Your task to perform on an android device: Search for bose soundlink mini on costco, select the first entry, add it to the cart, then select checkout. Image 0: 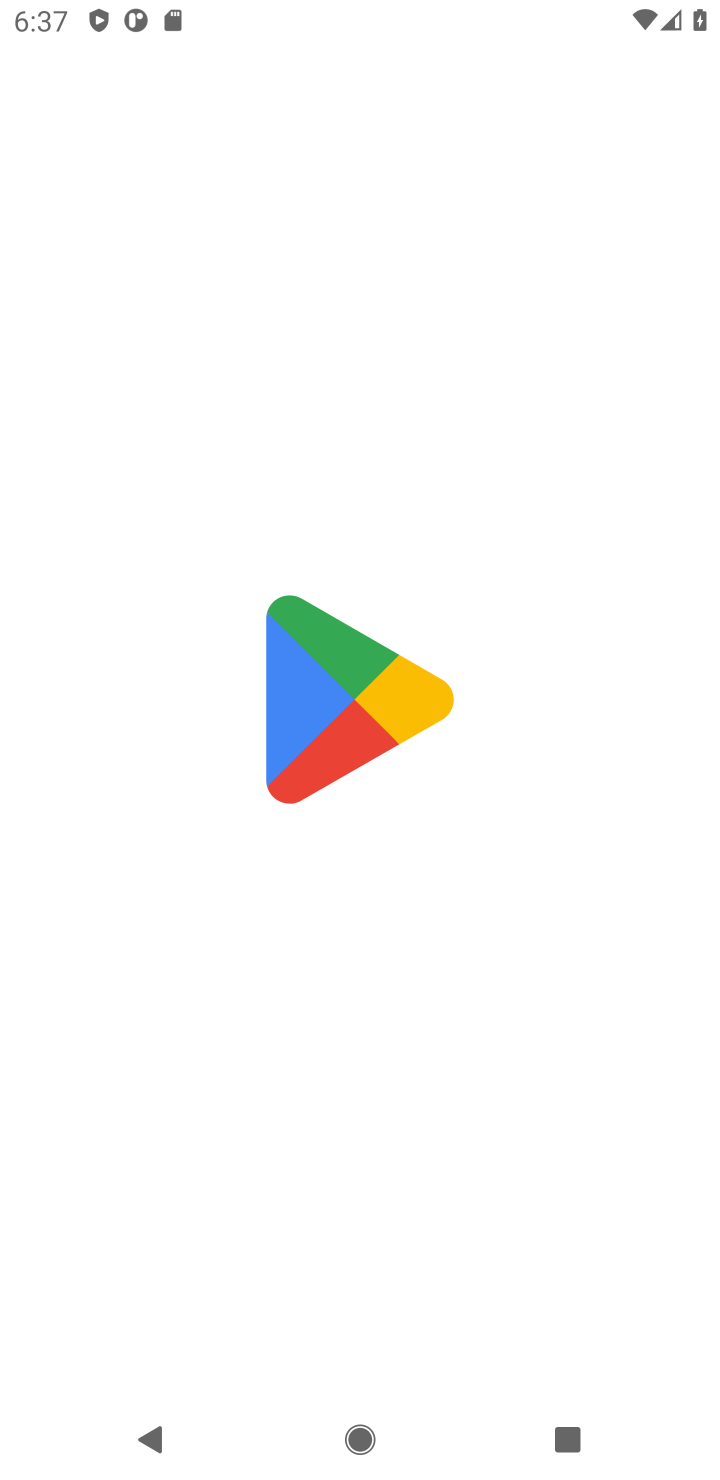
Step 0: press home button
Your task to perform on an android device: Search for bose soundlink mini on costco, select the first entry, add it to the cart, then select checkout. Image 1: 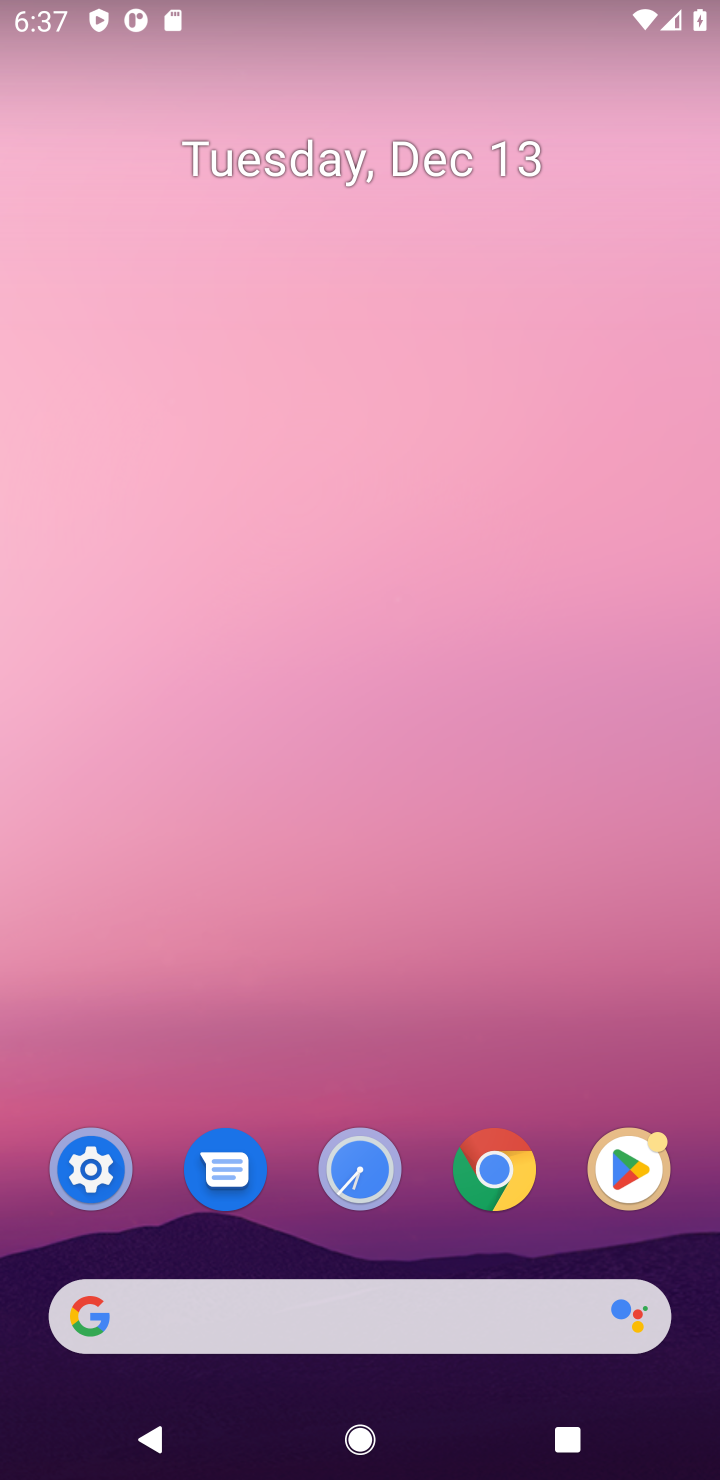
Step 1: type "bose"
Your task to perform on an android device: Search for bose soundlink mini on costco, select the first entry, add it to the cart, then select checkout. Image 2: 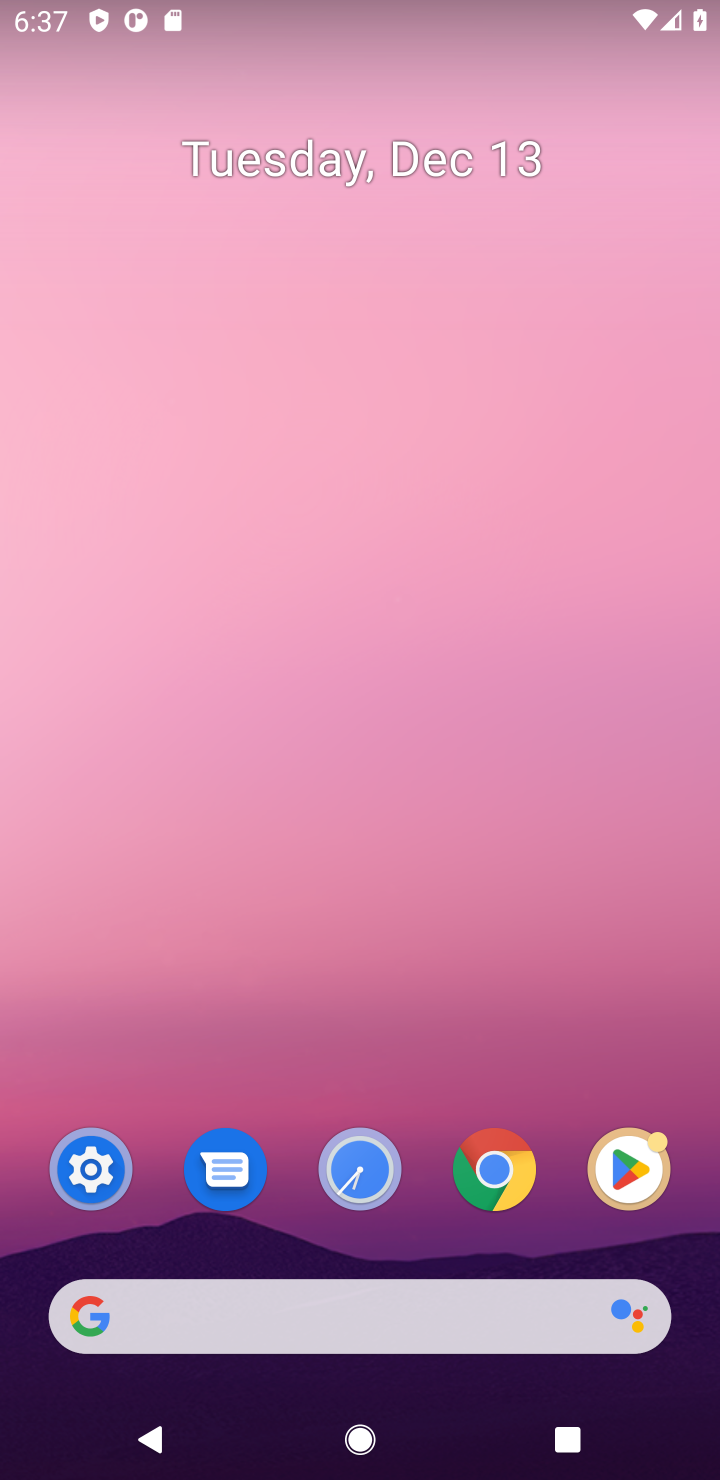
Step 2: click (485, 1189)
Your task to perform on an android device: Search for bose soundlink mini on costco, select the first entry, add it to the cart, then select checkout. Image 3: 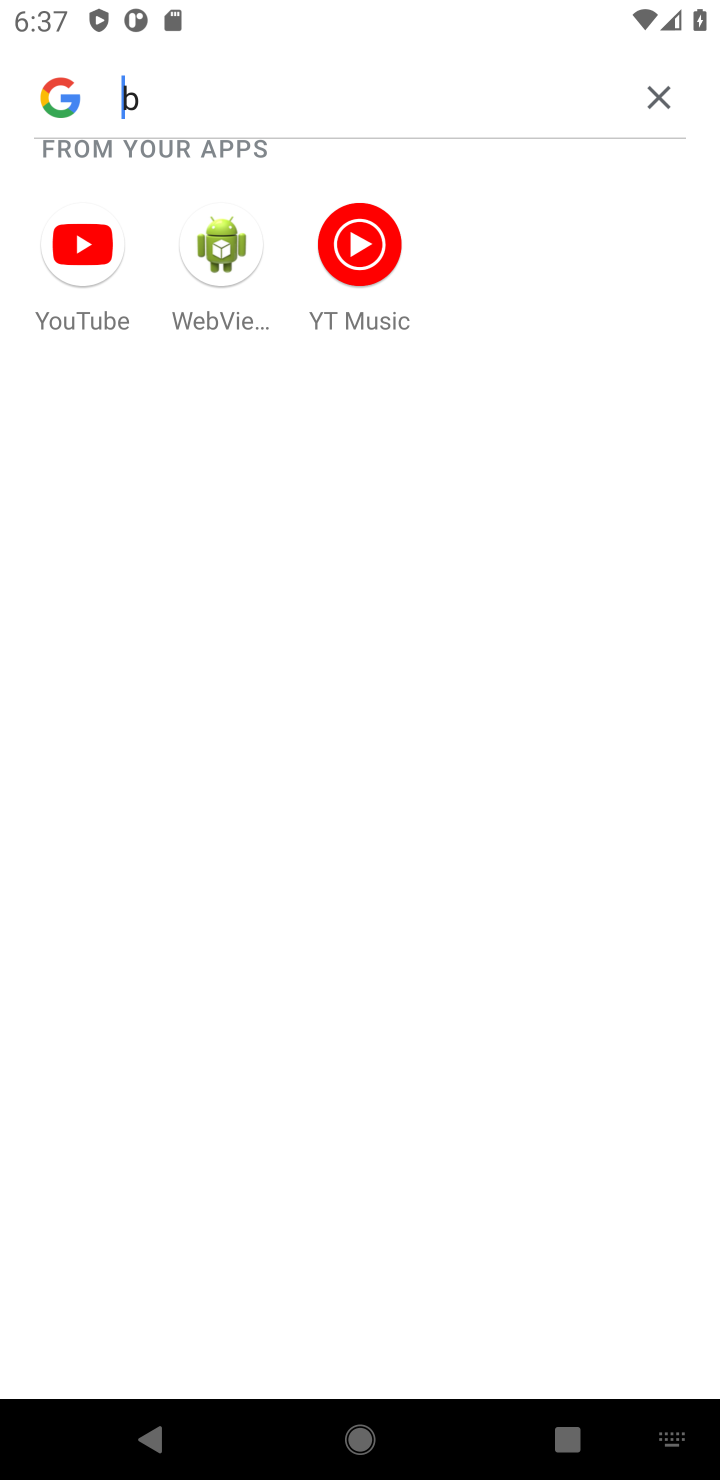
Step 3: press home button
Your task to perform on an android device: Search for bose soundlink mini on costco, select the first entry, add it to the cart, then select checkout. Image 4: 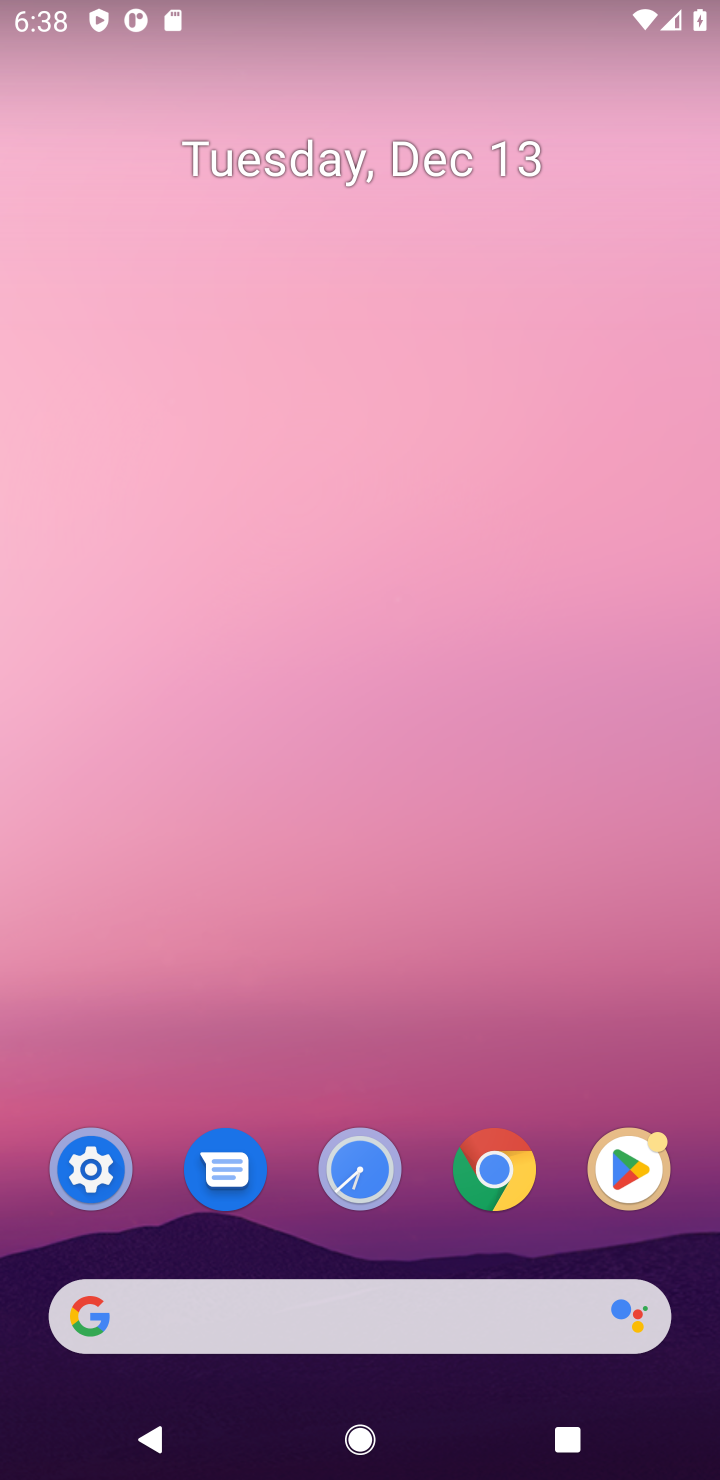
Step 4: click (508, 1150)
Your task to perform on an android device: Search for bose soundlink mini on costco, select the first entry, add it to the cart, then select checkout. Image 5: 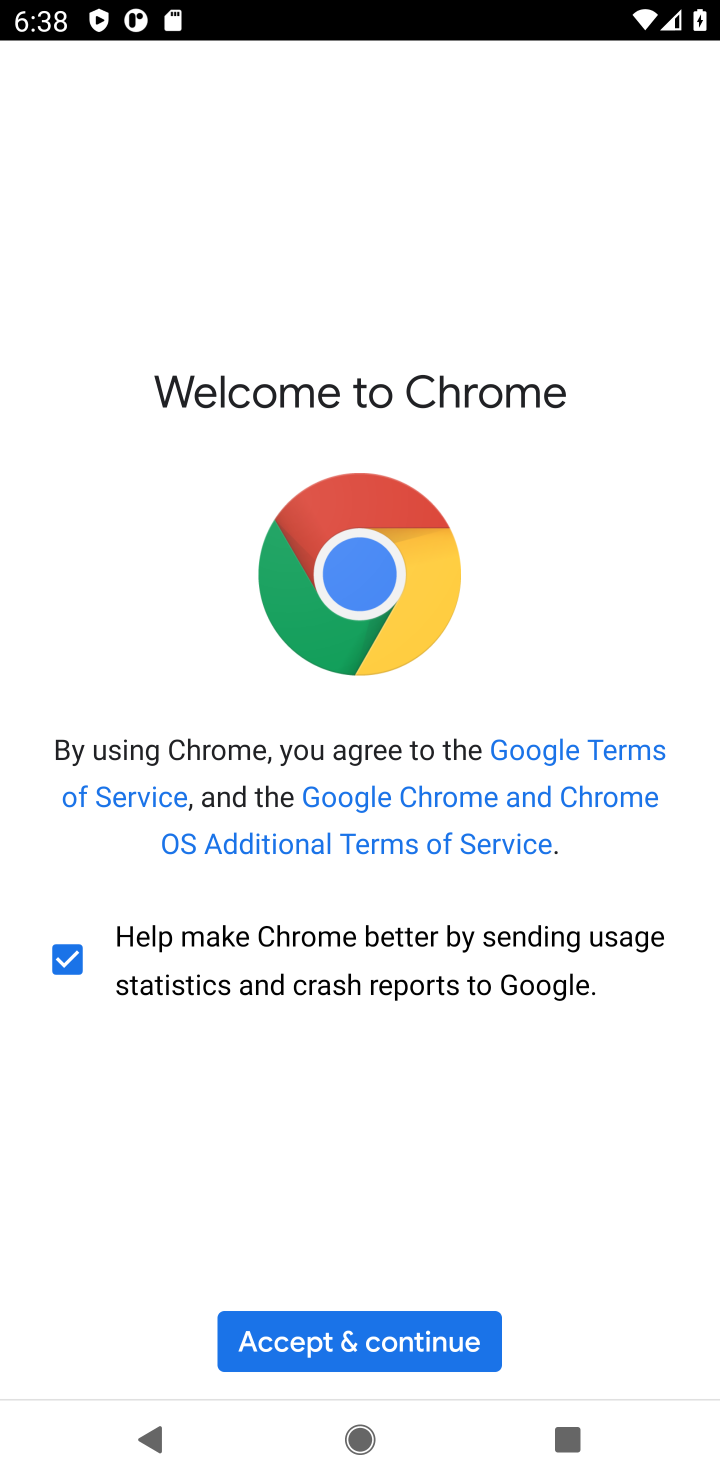
Step 5: click (442, 1310)
Your task to perform on an android device: Search for bose soundlink mini on costco, select the first entry, add it to the cart, then select checkout. Image 6: 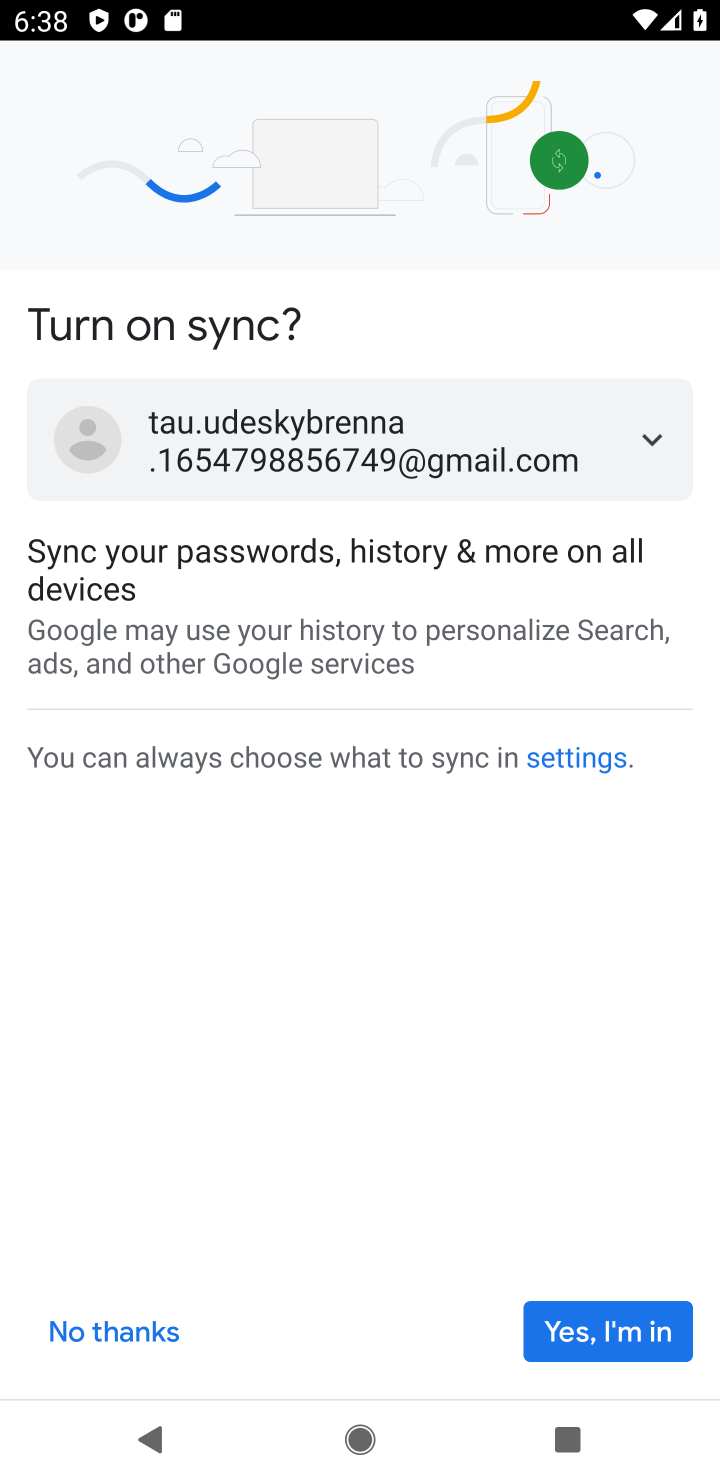
Step 6: click (522, 1345)
Your task to perform on an android device: Search for bose soundlink mini on costco, select the first entry, add it to the cart, then select checkout. Image 7: 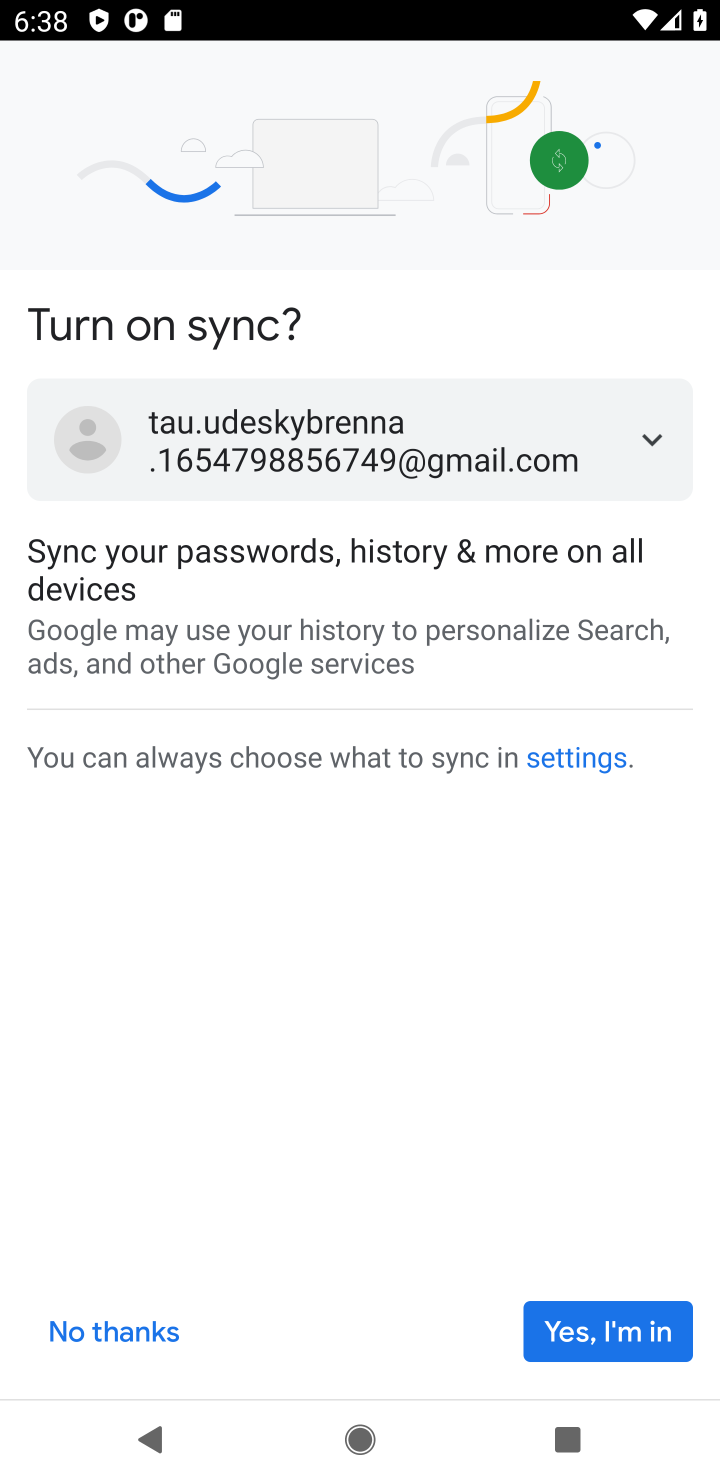
Step 7: click (557, 1332)
Your task to perform on an android device: Search for bose soundlink mini on costco, select the first entry, add it to the cart, then select checkout. Image 8: 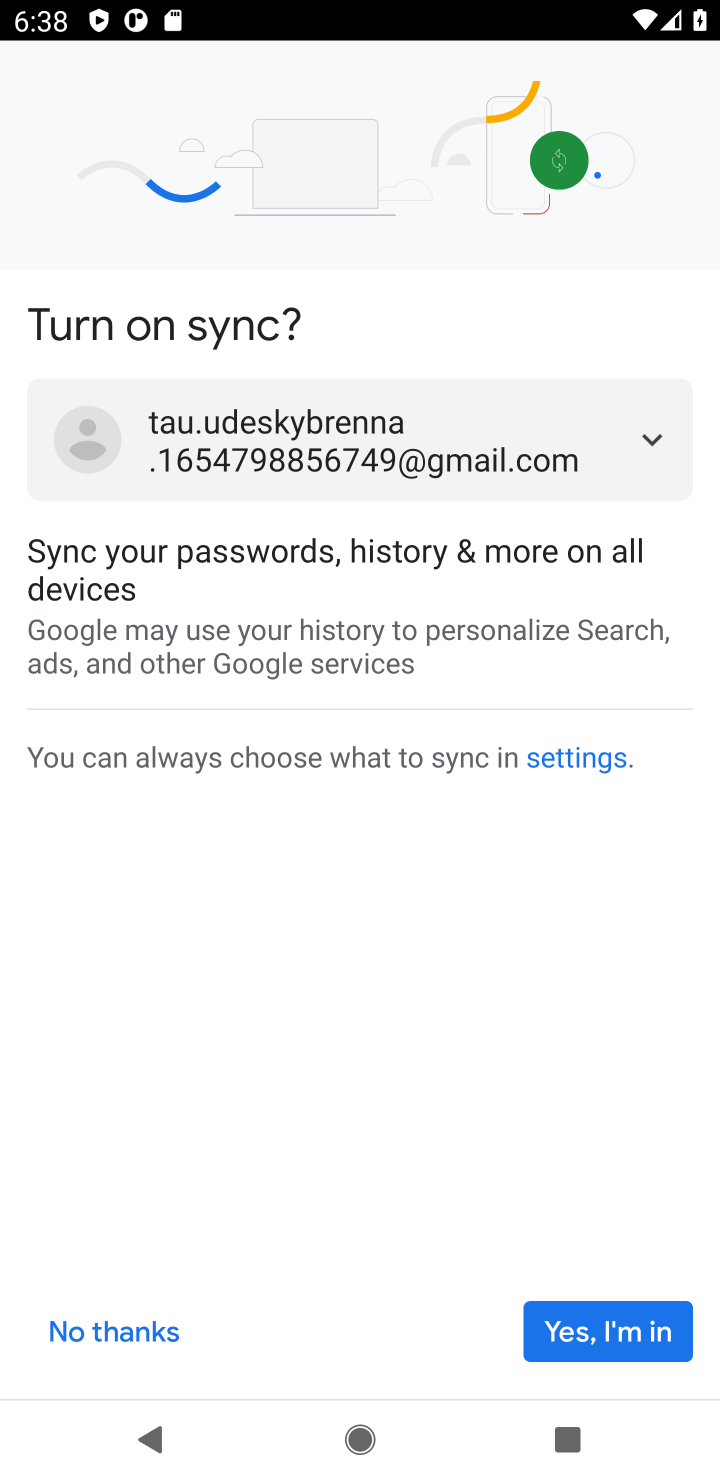
Step 8: click (557, 1332)
Your task to perform on an android device: Search for bose soundlink mini on costco, select the first entry, add it to the cart, then select checkout. Image 9: 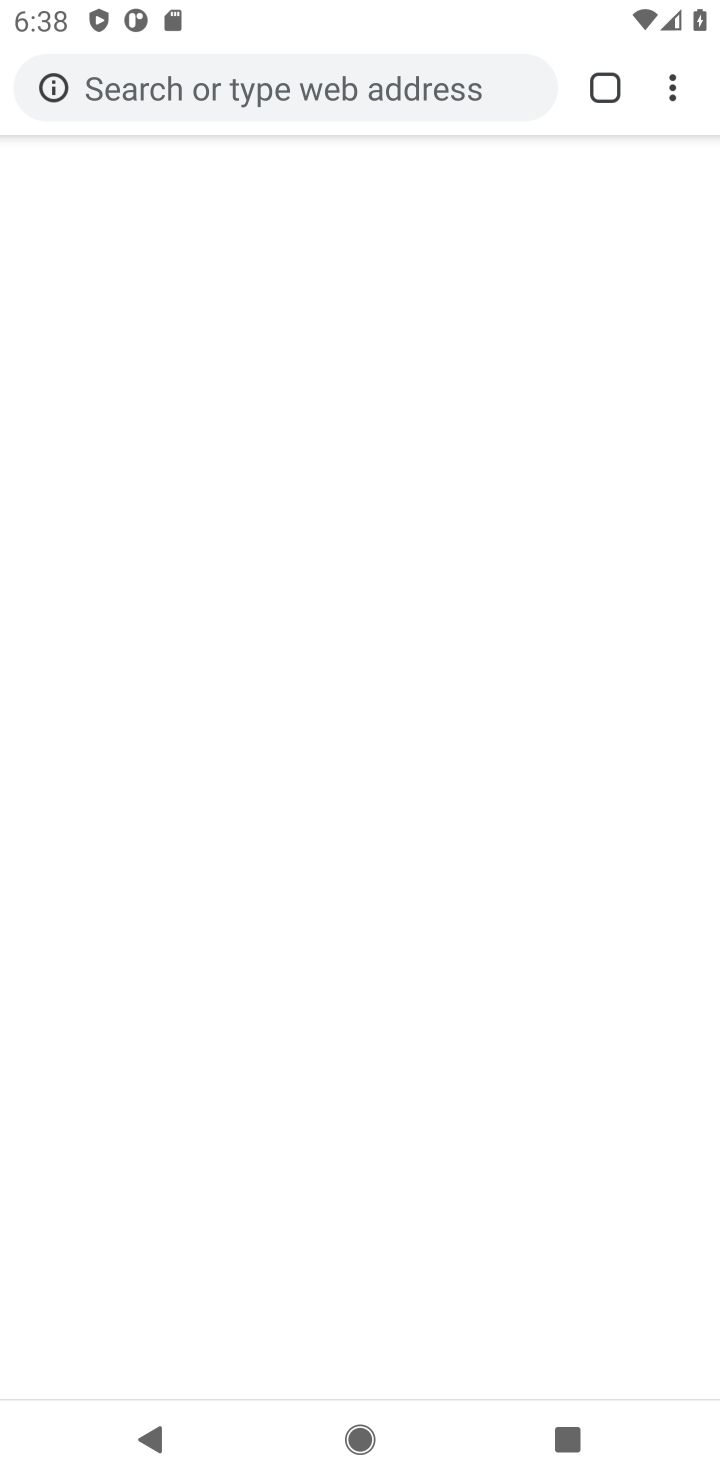
Step 9: click (557, 1332)
Your task to perform on an android device: Search for bose soundlink mini on costco, select the first entry, add it to the cart, then select checkout. Image 10: 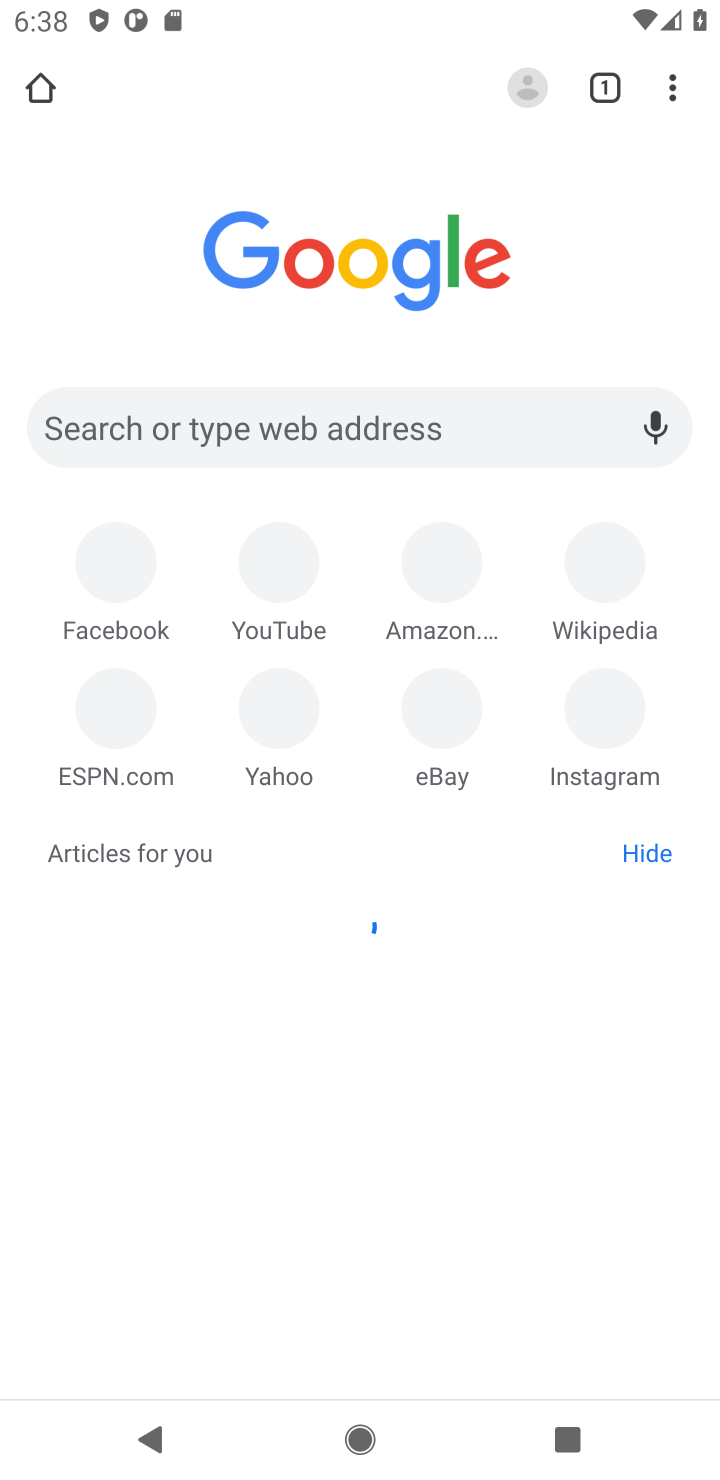
Step 10: click (477, 445)
Your task to perform on an android device: Search for bose soundlink mini on costco, select the first entry, add it to the cart, then select checkout. Image 11: 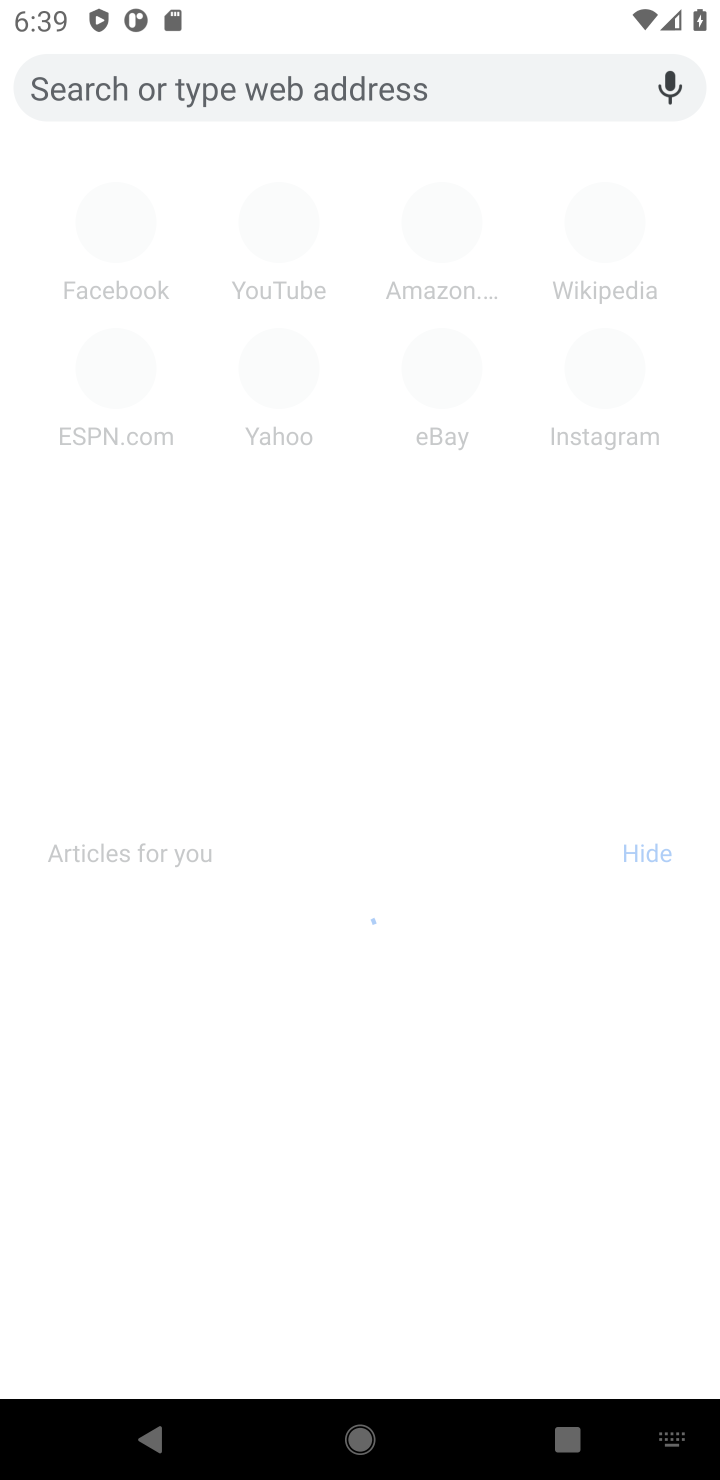
Step 11: type "soundlink"
Your task to perform on an android device: Search for bose soundlink mini on costco, select the first entry, add it to the cart, then select checkout. Image 12: 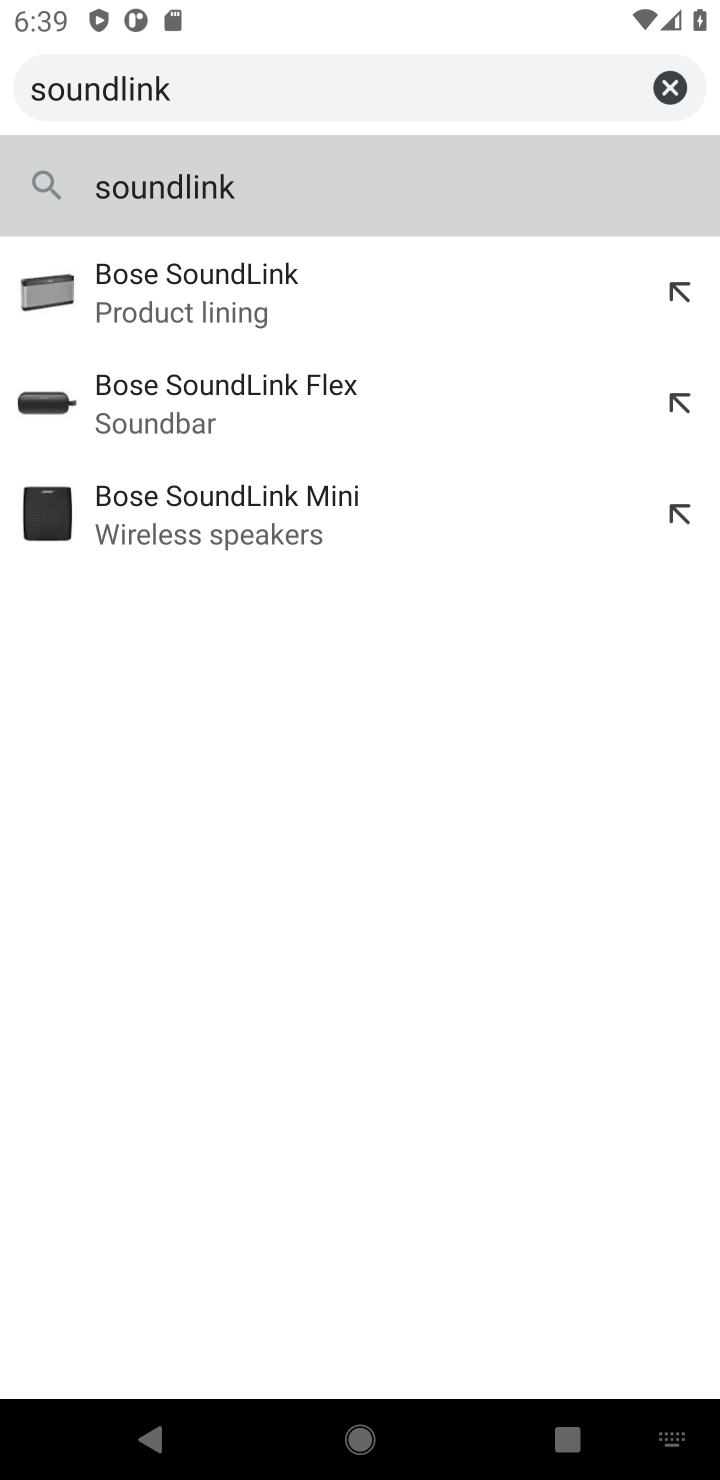
Step 12: click (322, 297)
Your task to perform on an android device: Search for bose soundlink mini on costco, select the first entry, add it to the cart, then select checkout. Image 13: 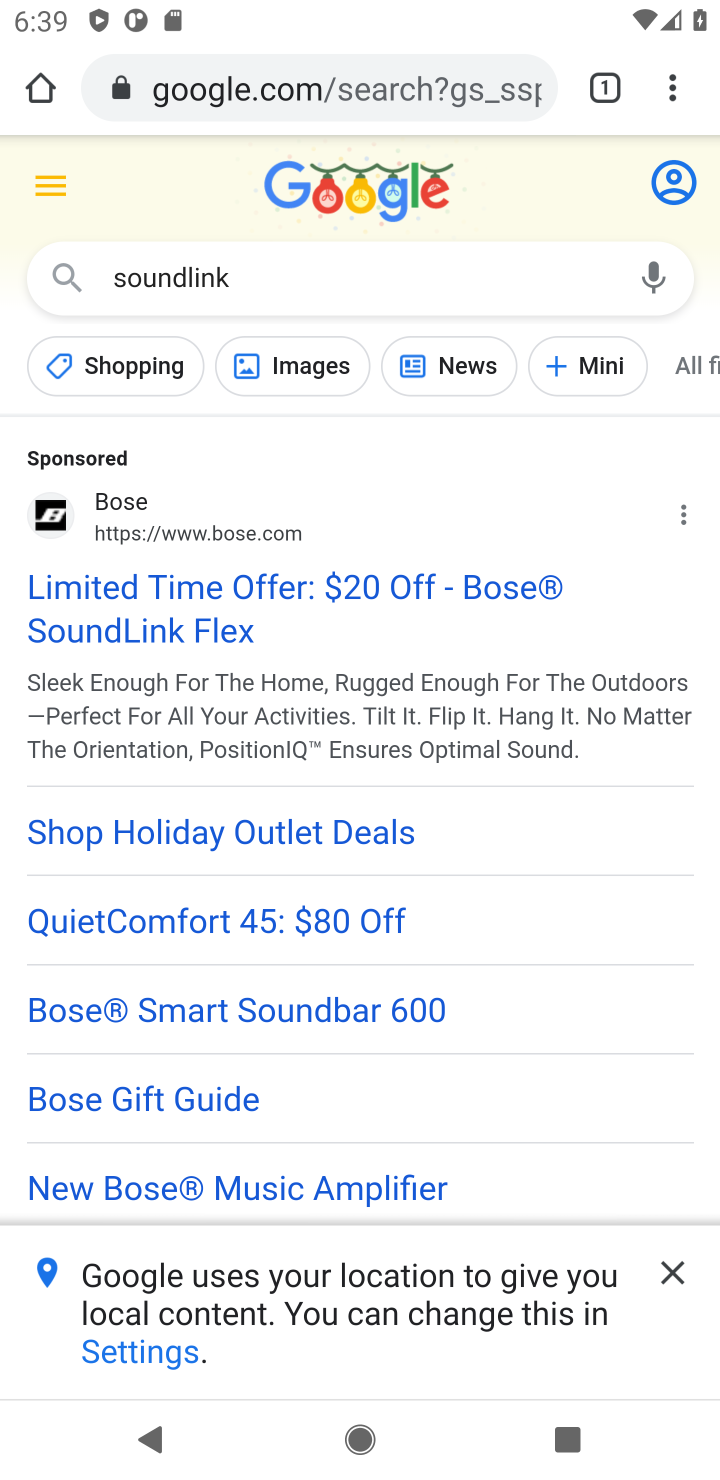
Step 13: task complete